Your task to perform on an android device: What's on my calendar today? Image 0: 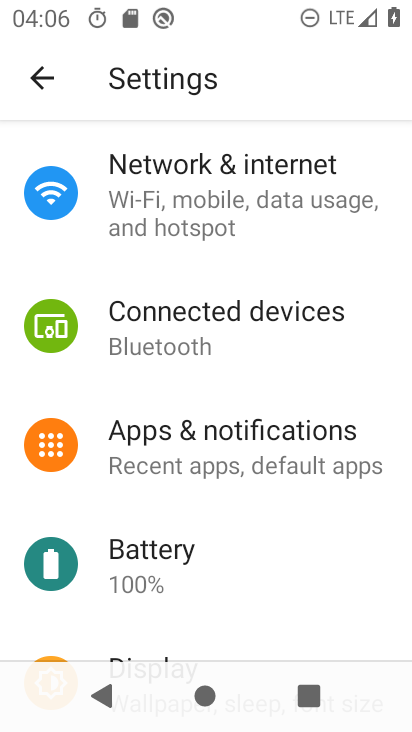
Step 0: press back button
Your task to perform on an android device: What's on my calendar today? Image 1: 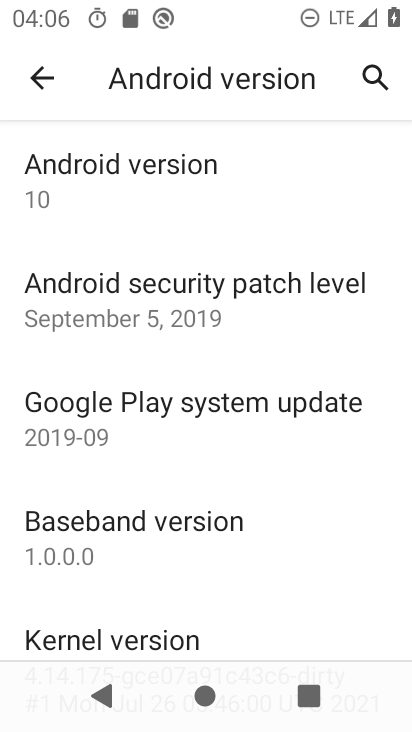
Step 1: press back button
Your task to perform on an android device: What's on my calendar today? Image 2: 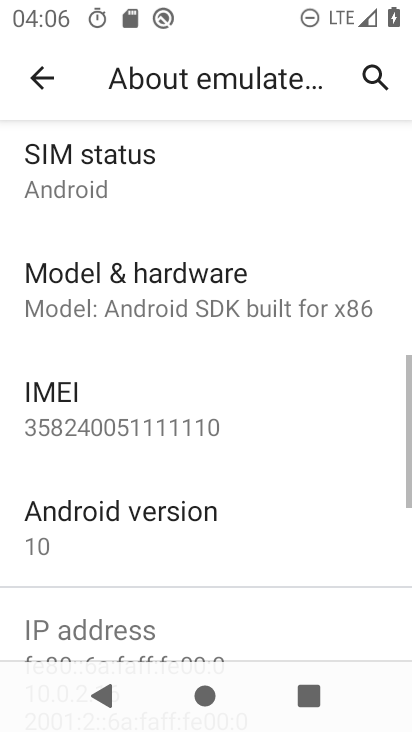
Step 2: press back button
Your task to perform on an android device: What's on my calendar today? Image 3: 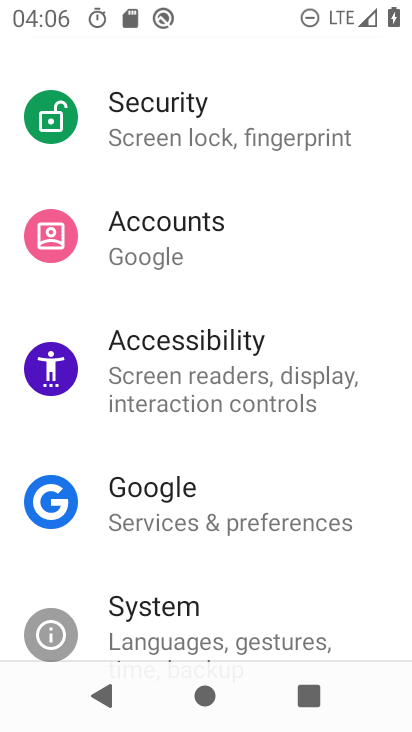
Step 3: press back button
Your task to perform on an android device: What's on my calendar today? Image 4: 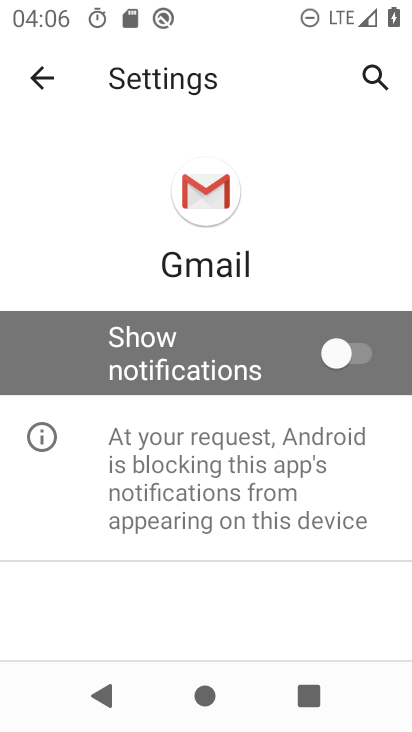
Step 4: press back button
Your task to perform on an android device: What's on my calendar today? Image 5: 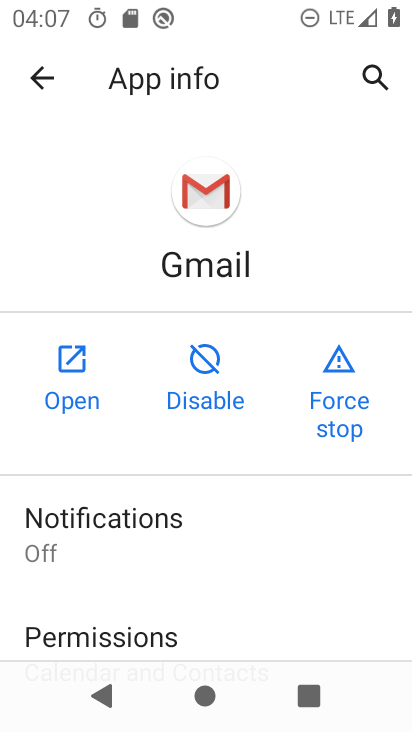
Step 5: press back button
Your task to perform on an android device: What's on my calendar today? Image 6: 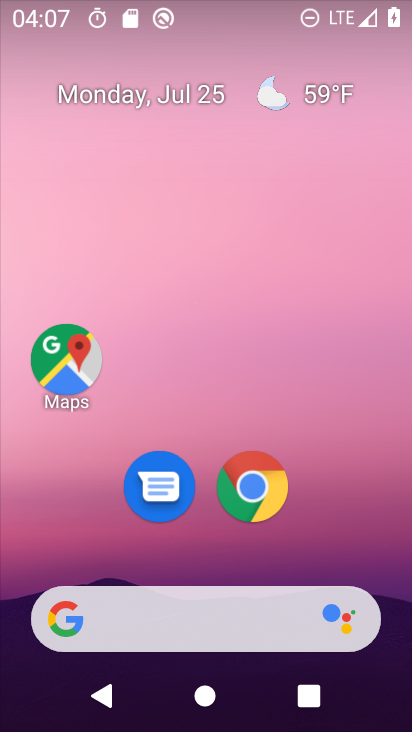
Step 6: drag from (170, 472) to (257, 27)
Your task to perform on an android device: What's on my calendar today? Image 7: 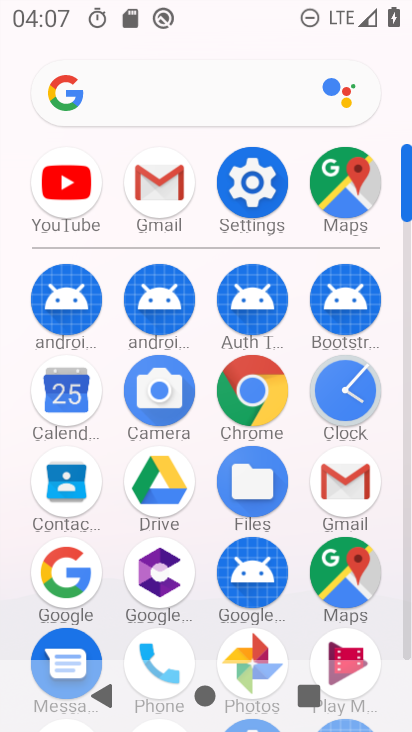
Step 7: click (62, 380)
Your task to perform on an android device: What's on my calendar today? Image 8: 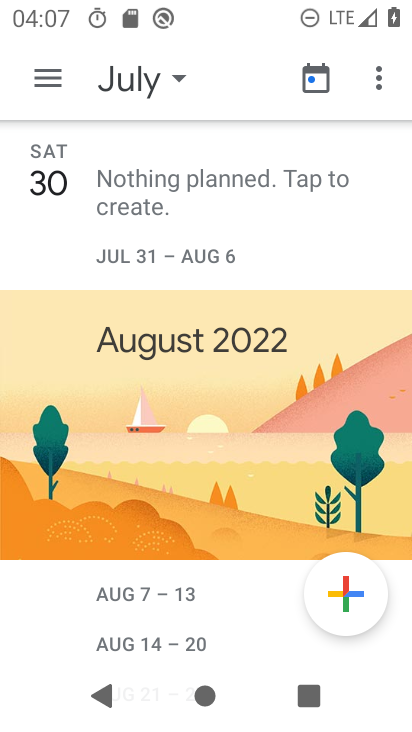
Step 8: task complete